Your task to perform on an android device: What's the weather? Image 0: 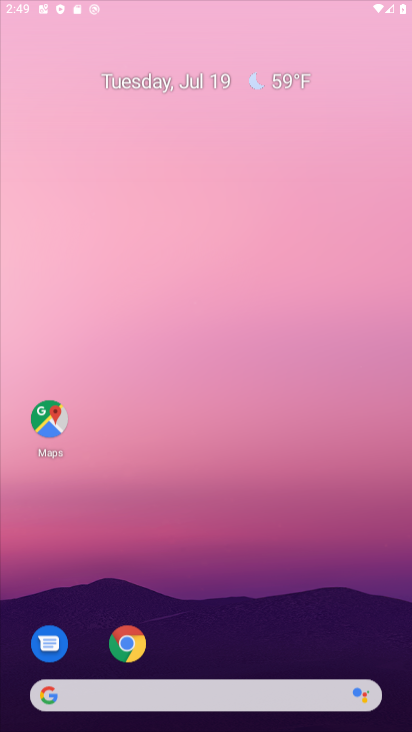
Step 0: click (252, 443)
Your task to perform on an android device: What's the weather? Image 1: 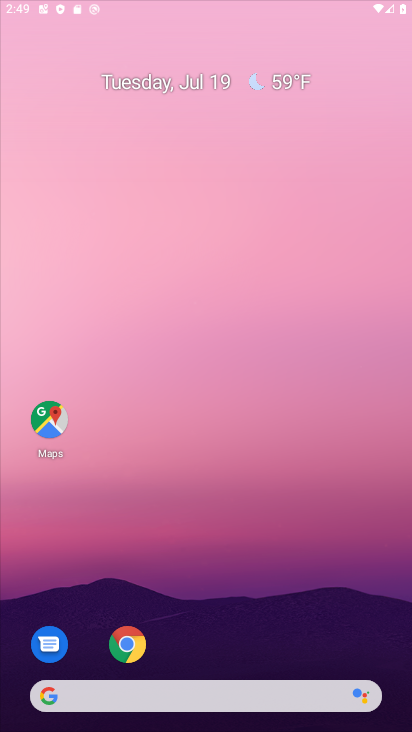
Step 1: drag from (202, 584) to (180, 356)
Your task to perform on an android device: What's the weather? Image 2: 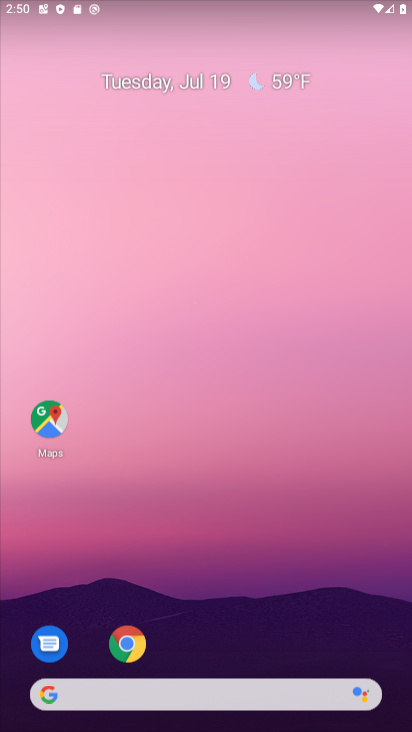
Step 2: drag from (65, 178) to (393, 415)
Your task to perform on an android device: What's the weather? Image 3: 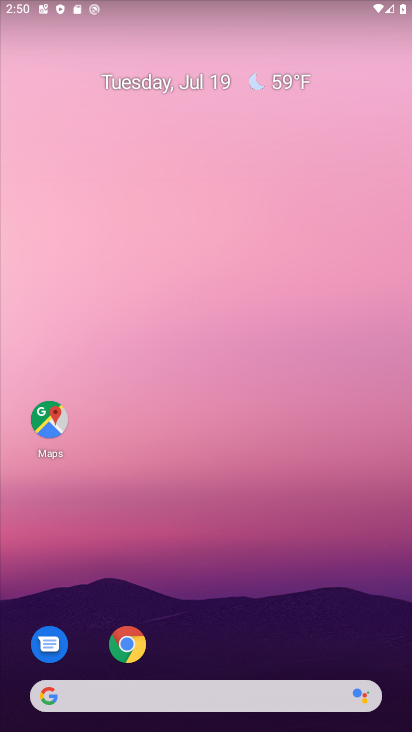
Step 3: drag from (217, 274) to (403, 418)
Your task to perform on an android device: What's the weather? Image 4: 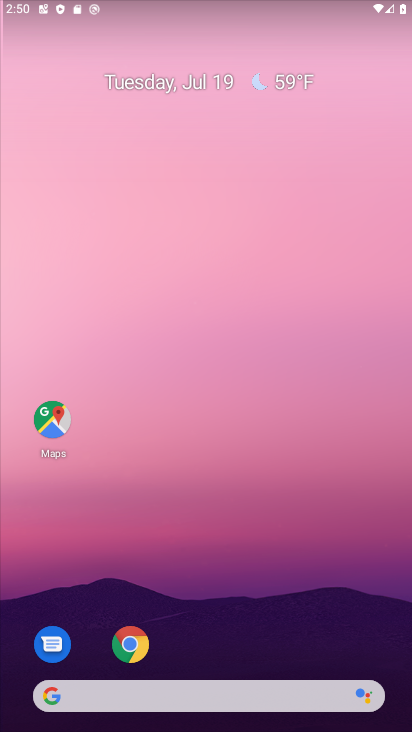
Step 4: drag from (198, 134) to (400, 285)
Your task to perform on an android device: What's the weather? Image 5: 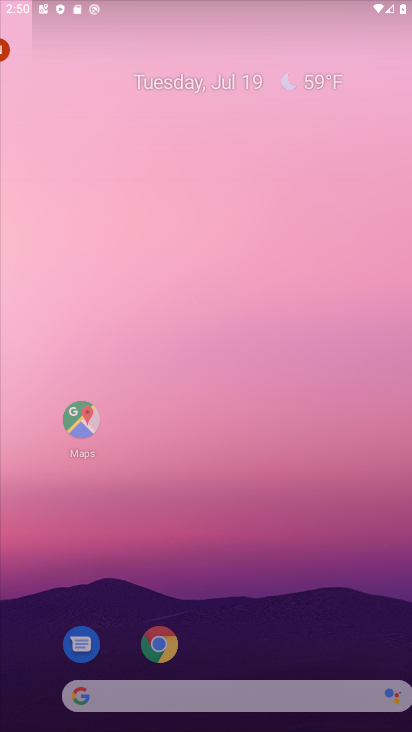
Step 5: click (250, 85)
Your task to perform on an android device: What's the weather? Image 6: 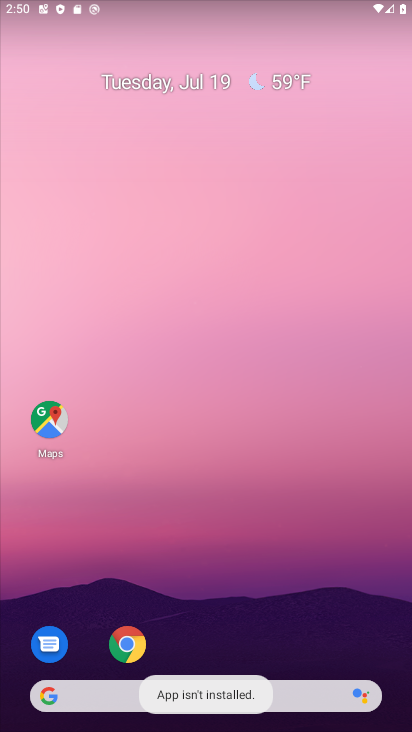
Step 6: click (256, 80)
Your task to perform on an android device: What's the weather? Image 7: 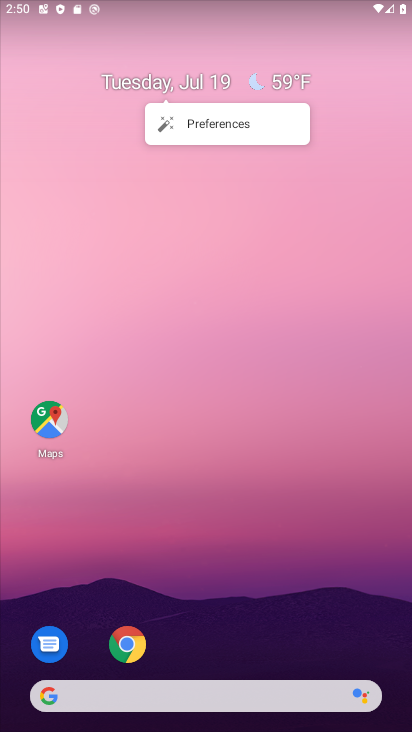
Step 7: click (261, 80)
Your task to perform on an android device: What's the weather? Image 8: 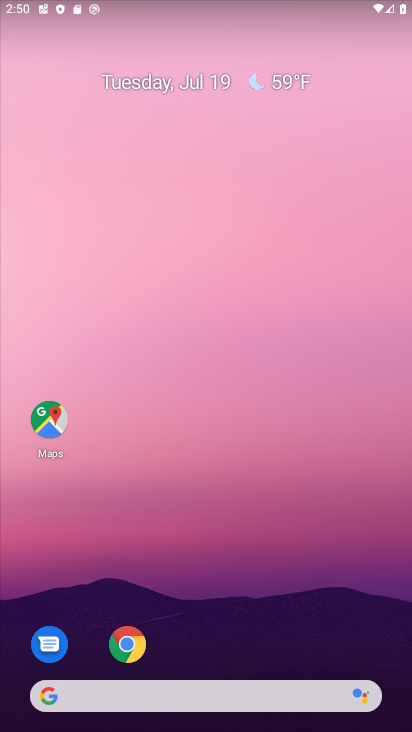
Step 8: click (287, 84)
Your task to perform on an android device: What's the weather? Image 9: 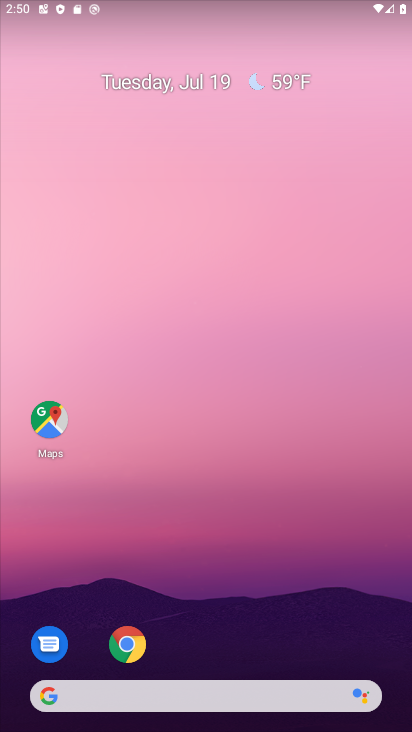
Step 9: click (287, 83)
Your task to perform on an android device: What's the weather? Image 10: 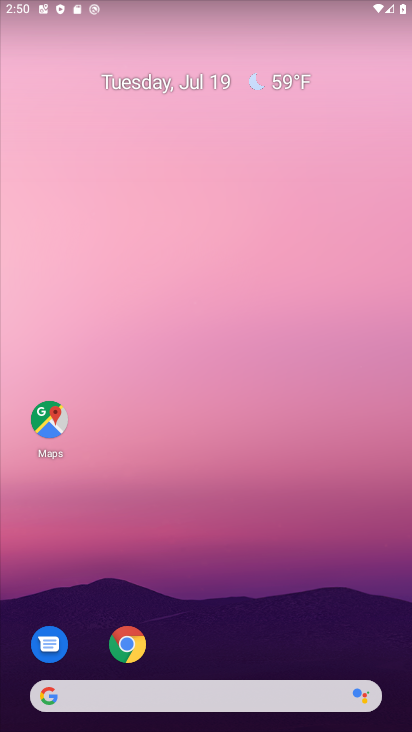
Step 10: drag from (27, 110) to (400, 318)
Your task to perform on an android device: What's the weather? Image 11: 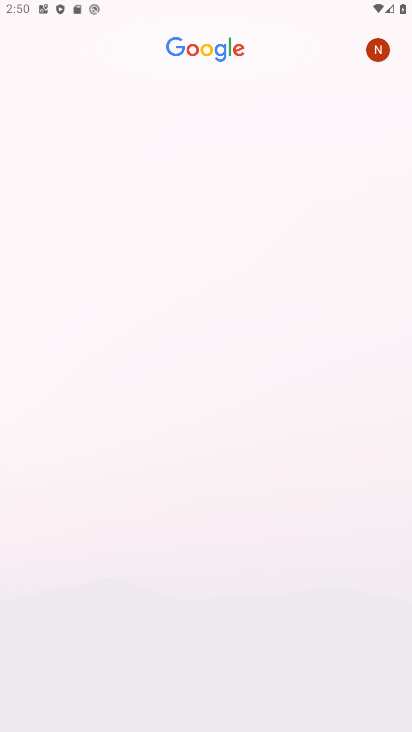
Step 11: drag from (55, 136) to (408, 203)
Your task to perform on an android device: What's the weather? Image 12: 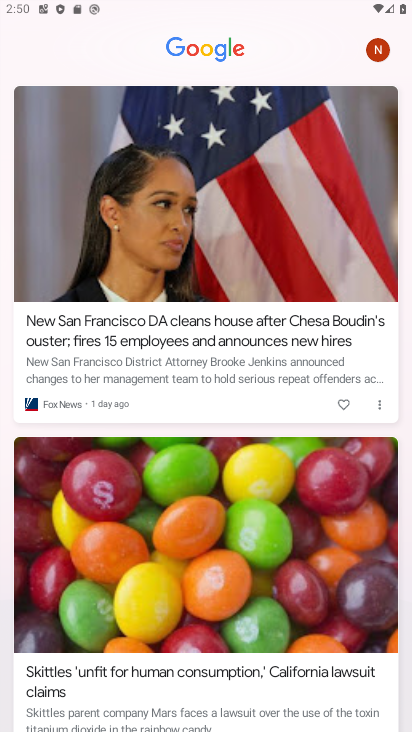
Step 12: drag from (182, 122) to (181, 391)
Your task to perform on an android device: What's the weather? Image 13: 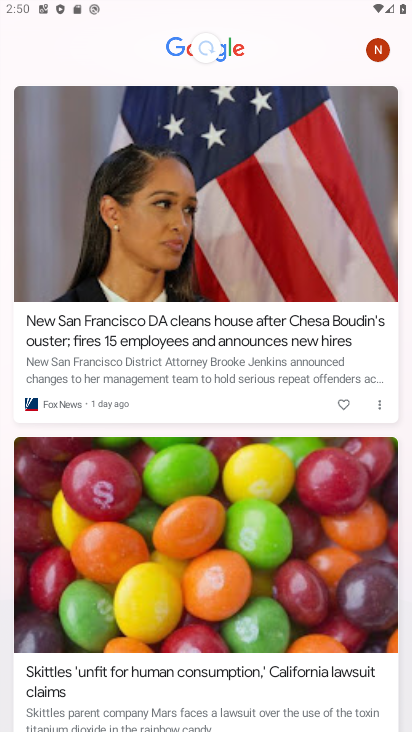
Step 13: drag from (161, 200) to (263, 527)
Your task to perform on an android device: What's the weather? Image 14: 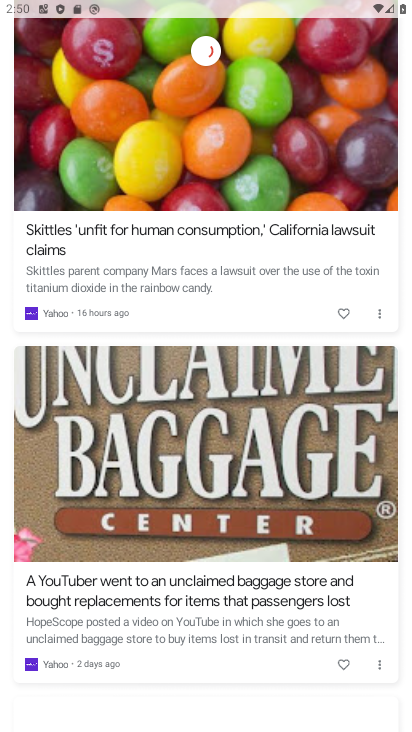
Step 14: click (253, 643)
Your task to perform on an android device: What's the weather? Image 15: 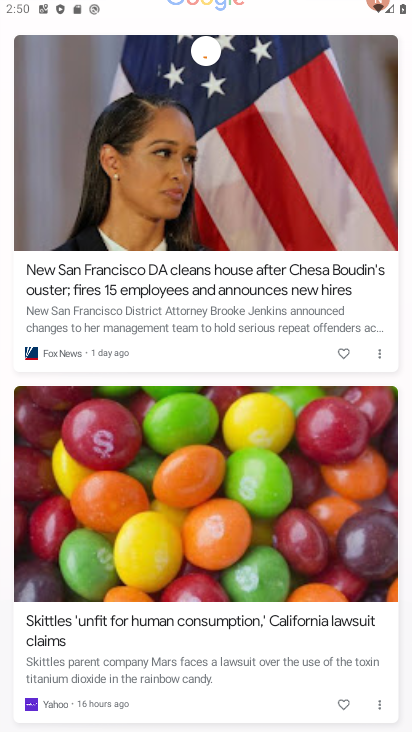
Step 15: task complete